Your task to perform on an android device: Go to display settings Image 0: 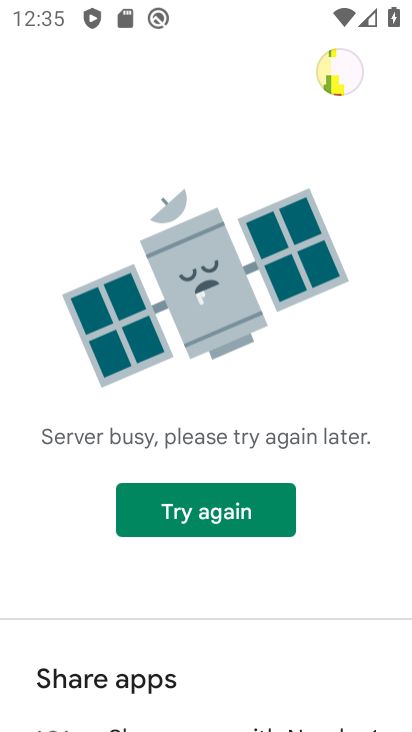
Step 0: press back button
Your task to perform on an android device: Go to display settings Image 1: 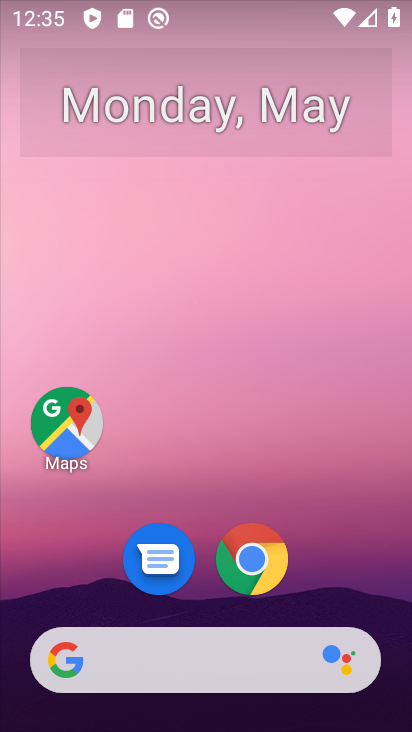
Step 1: drag from (242, 266) to (268, 39)
Your task to perform on an android device: Go to display settings Image 2: 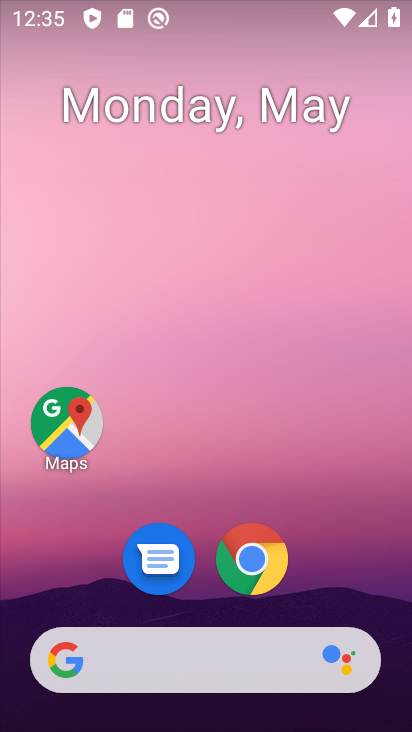
Step 2: drag from (234, 478) to (301, 102)
Your task to perform on an android device: Go to display settings Image 3: 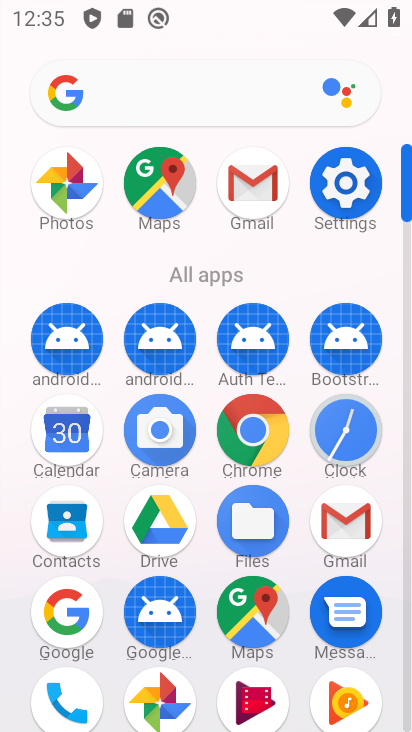
Step 3: click (346, 183)
Your task to perform on an android device: Go to display settings Image 4: 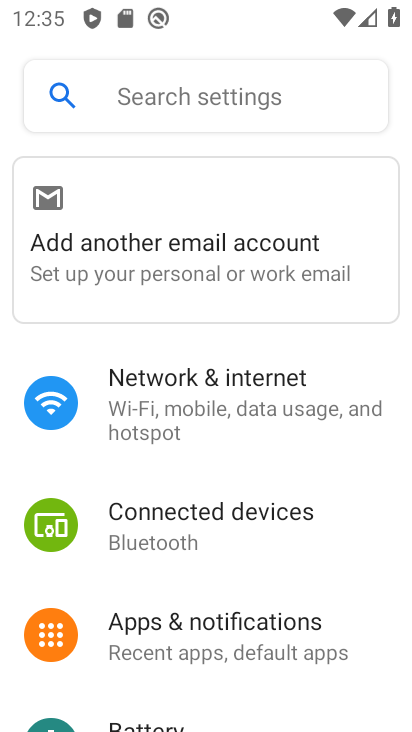
Step 4: drag from (226, 219) to (264, 92)
Your task to perform on an android device: Go to display settings Image 5: 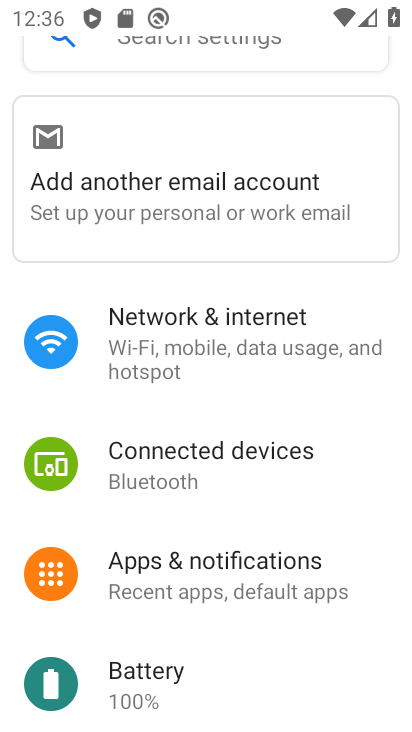
Step 5: drag from (175, 631) to (260, 116)
Your task to perform on an android device: Go to display settings Image 6: 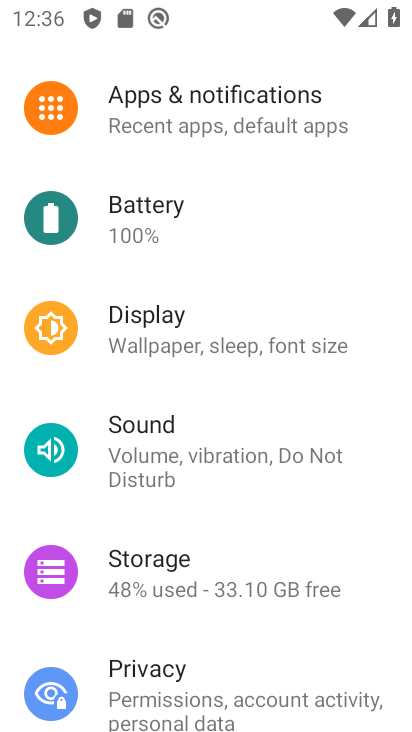
Step 6: click (150, 336)
Your task to perform on an android device: Go to display settings Image 7: 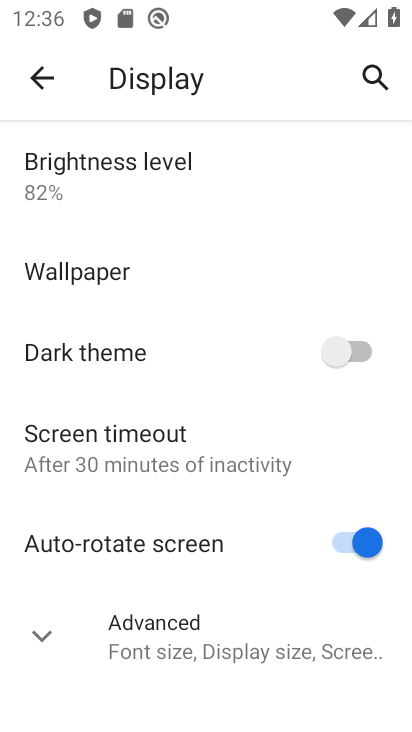
Step 7: task complete